Your task to perform on an android device: Turn off the flashlight Image 0: 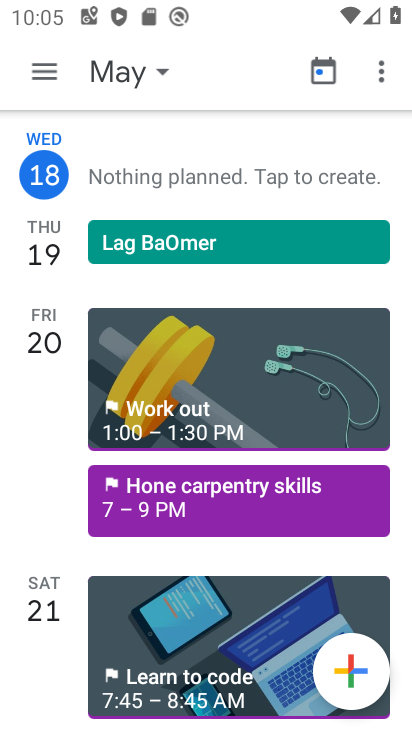
Step 0: press home button
Your task to perform on an android device: Turn off the flashlight Image 1: 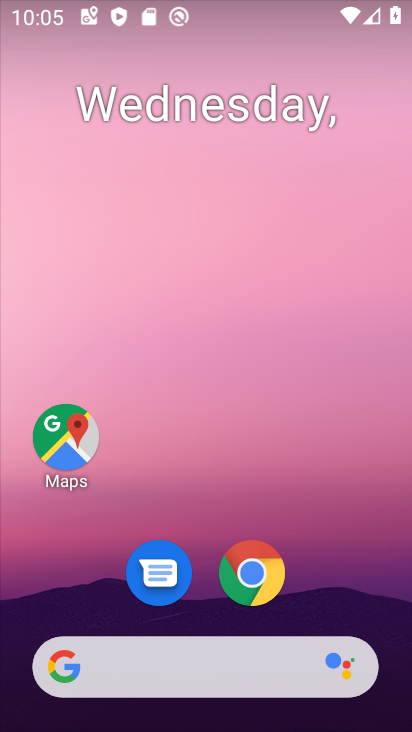
Step 1: drag from (268, 10) to (238, 501)
Your task to perform on an android device: Turn off the flashlight Image 2: 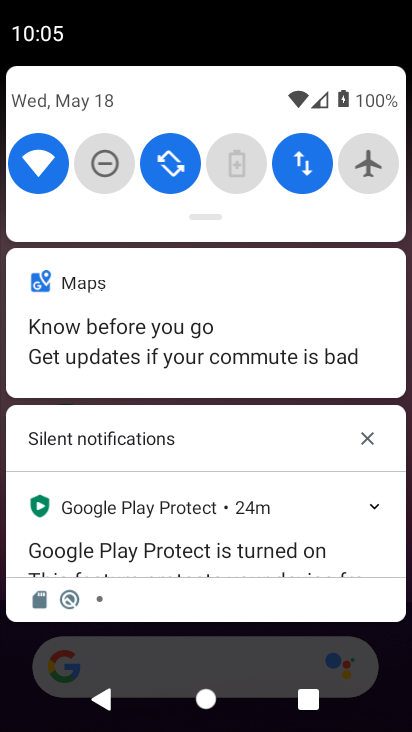
Step 2: drag from (202, 106) to (211, 420)
Your task to perform on an android device: Turn off the flashlight Image 3: 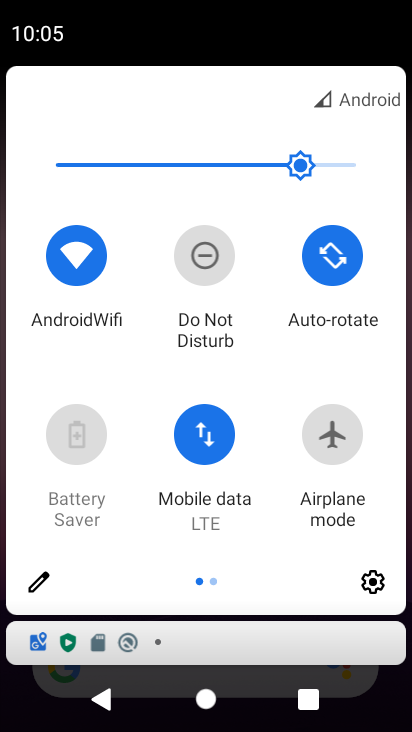
Step 3: drag from (261, 420) to (272, 289)
Your task to perform on an android device: Turn off the flashlight Image 4: 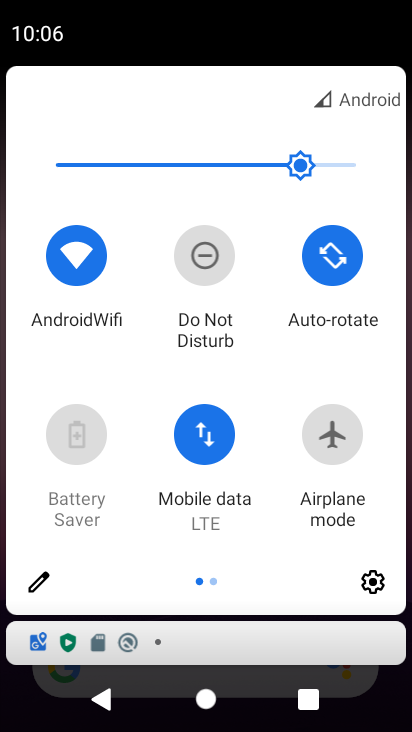
Step 4: click (50, 587)
Your task to perform on an android device: Turn off the flashlight Image 5: 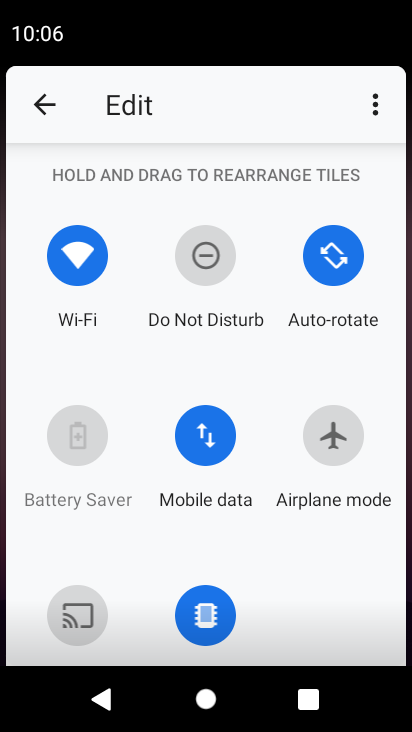
Step 5: task complete